Your task to perform on an android device: turn on data saver in the chrome app Image 0: 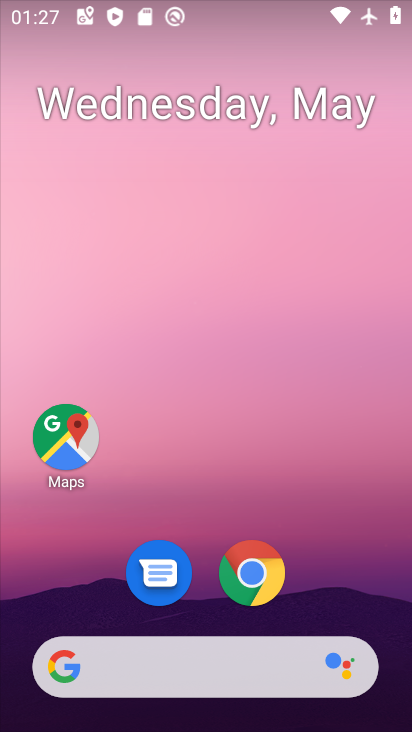
Step 0: drag from (340, 580) to (310, 202)
Your task to perform on an android device: turn on data saver in the chrome app Image 1: 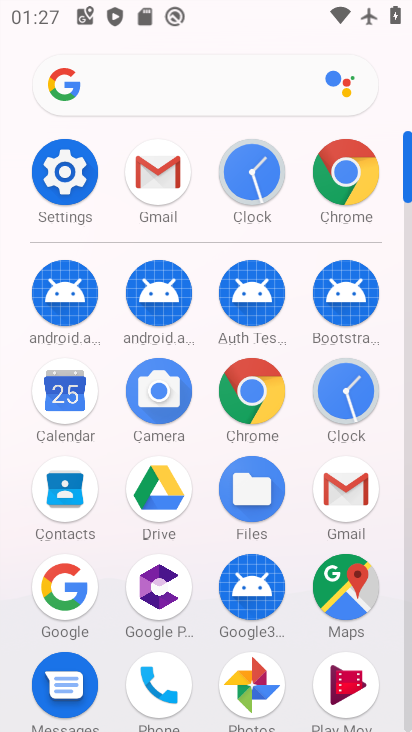
Step 1: click (329, 159)
Your task to perform on an android device: turn on data saver in the chrome app Image 2: 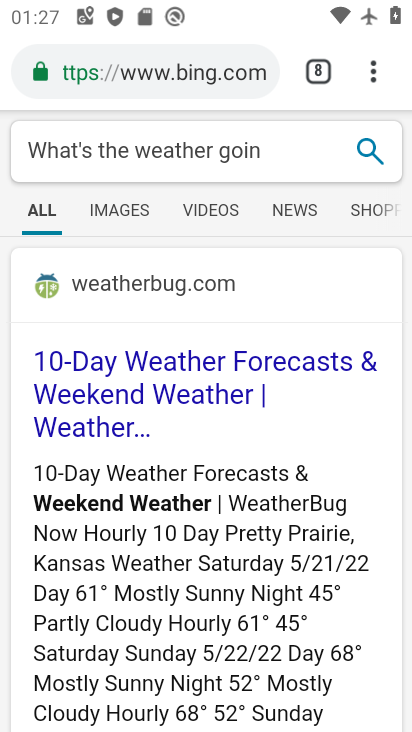
Step 2: click (365, 61)
Your task to perform on an android device: turn on data saver in the chrome app Image 3: 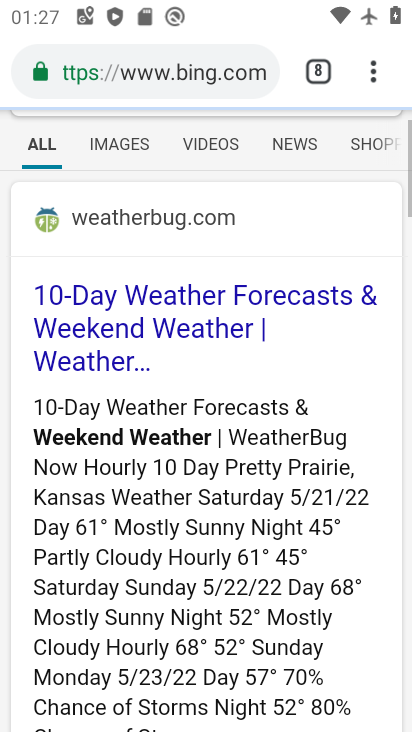
Step 3: click (368, 74)
Your task to perform on an android device: turn on data saver in the chrome app Image 4: 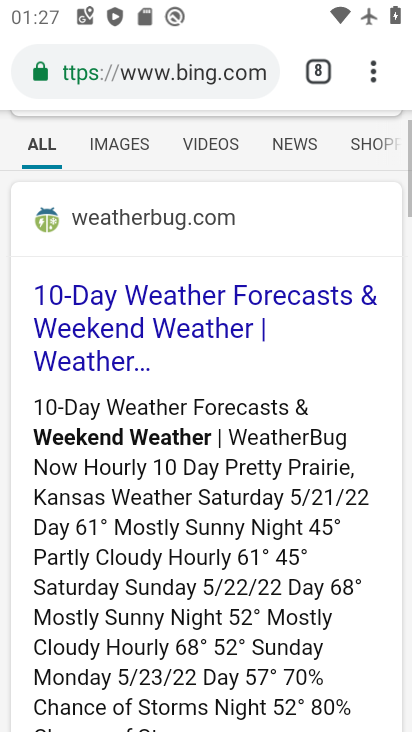
Step 4: click (372, 67)
Your task to perform on an android device: turn on data saver in the chrome app Image 5: 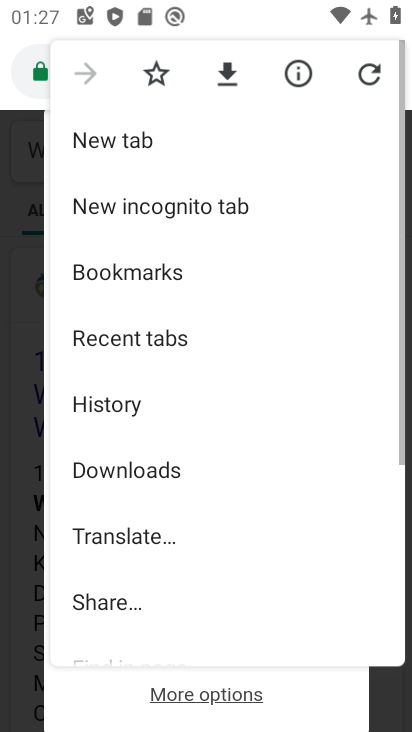
Step 5: drag from (196, 556) to (235, 234)
Your task to perform on an android device: turn on data saver in the chrome app Image 6: 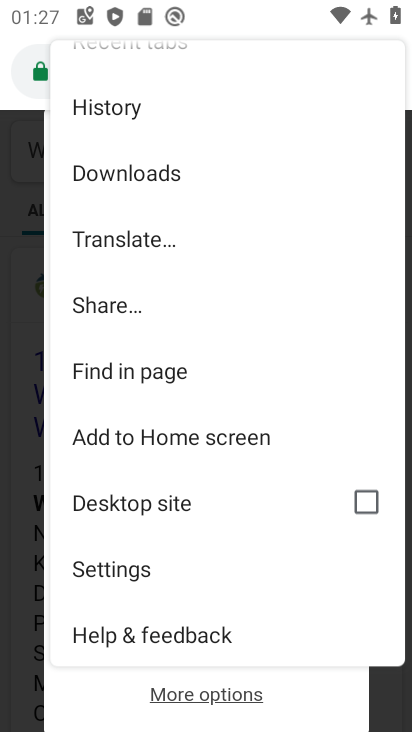
Step 6: click (143, 594)
Your task to perform on an android device: turn on data saver in the chrome app Image 7: 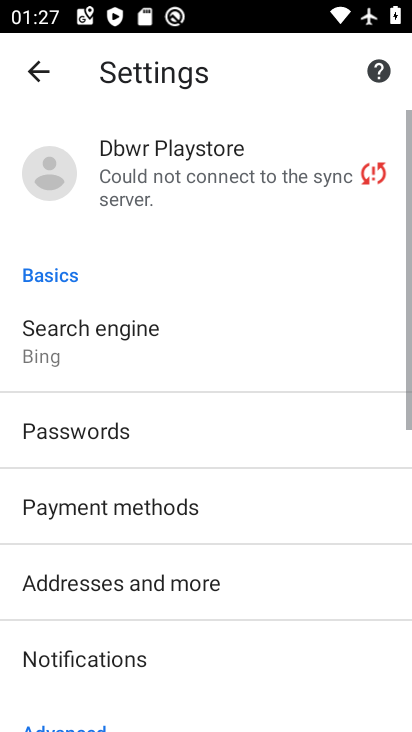
Step 7: drag from (216, 575) to (232, 169)
Your task to perform on an android device: turn on data saver in the chrome app Image 8: 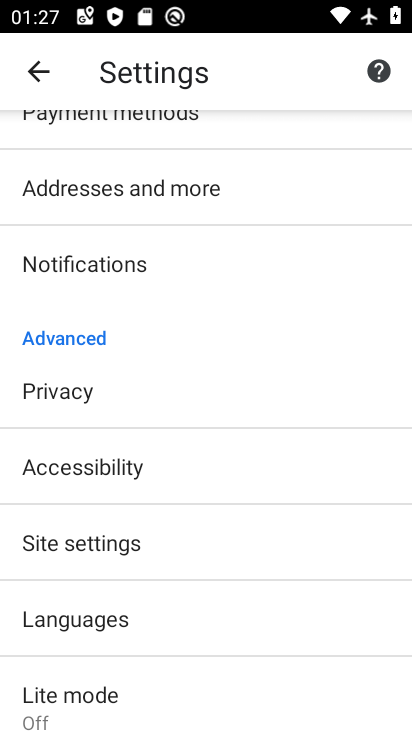
Step 8: drag from (121, 675) to (157, 438)
Your task to perform on an android device: turn on data saver in the chrome app Image 9: 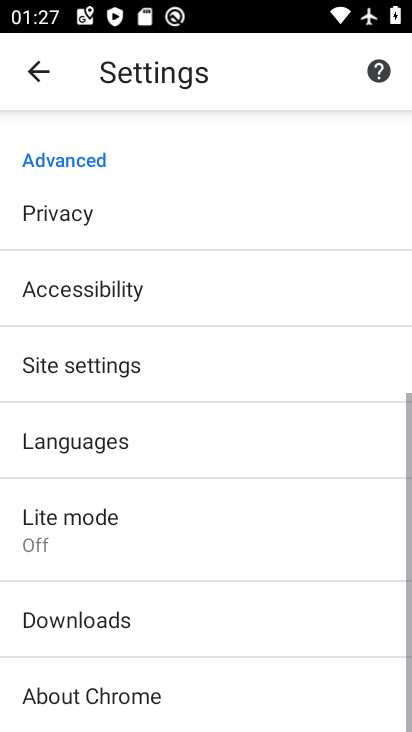
Step 9: click (114, 550)
Your task to perform on an android device: turn on data saver in the chrome app Image 10: 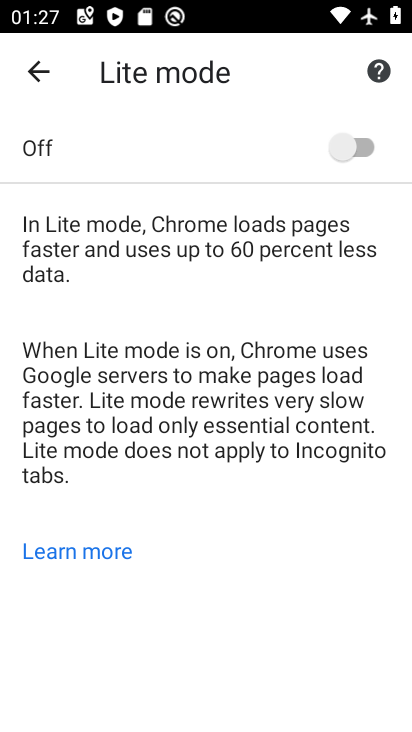
Step 10: click (359, 143)
Your task to perform on an android device: turn on data saver in the chrome app Image 11: 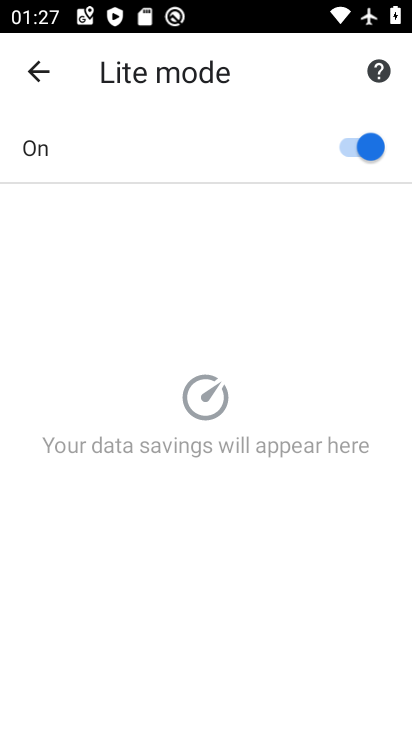
Step 11: task complete